Your task to perform on an android device: Open the web browser Image 0: 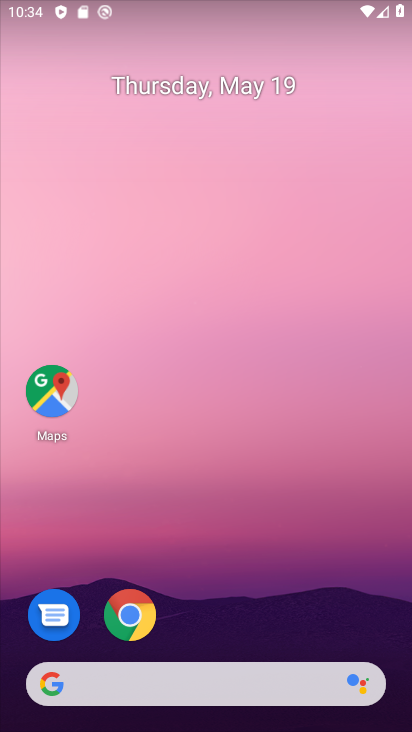
Step 0: drag from (281, 452) to (264, 130)
Your task to perform on an android device: Open the web browser Image 1: 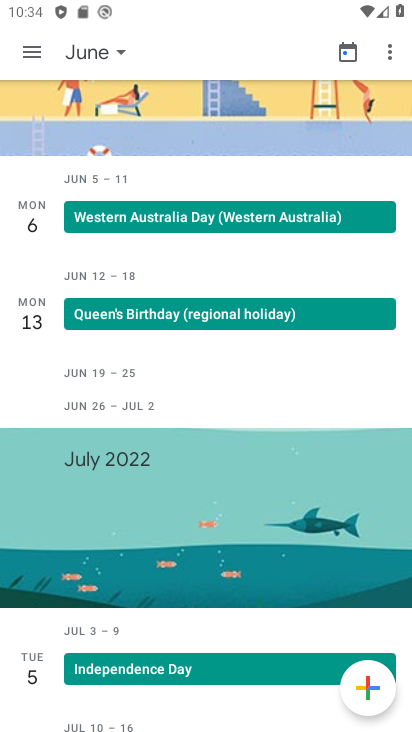
Step 1: press back button
Your task to perform on an android device: Open the web browser Image 2: 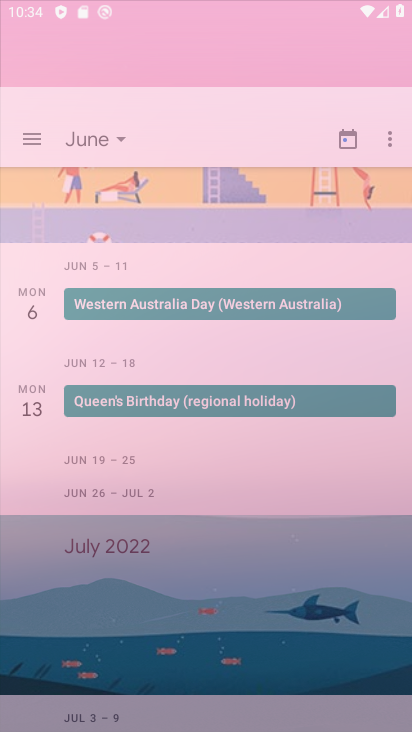
Step 2: press back button
Your task to perform on an android device: Open the web browser Image 3: 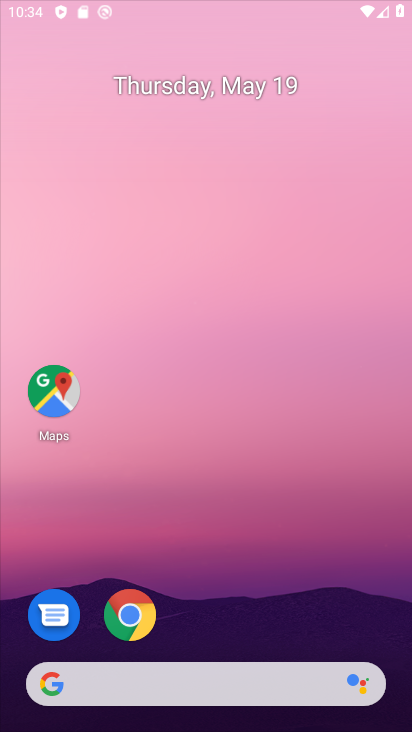
Step 3: press back button
Your task to perform on an android device: Open the web browser Image 4: 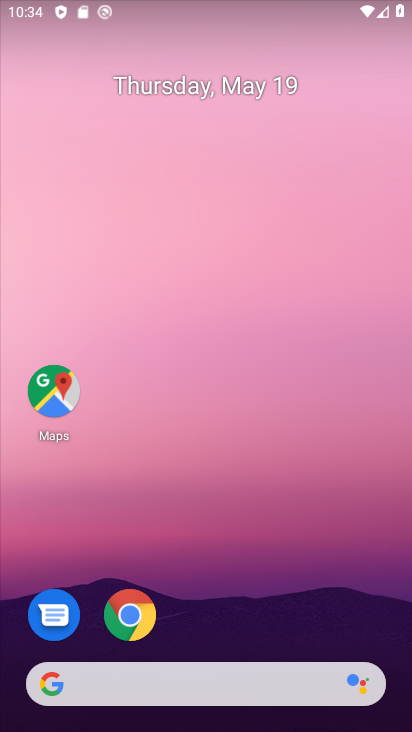
Step 4: drag from (264, 579) to (193, 162)
Your task to perform on an android device: Open the web browser Image 5: 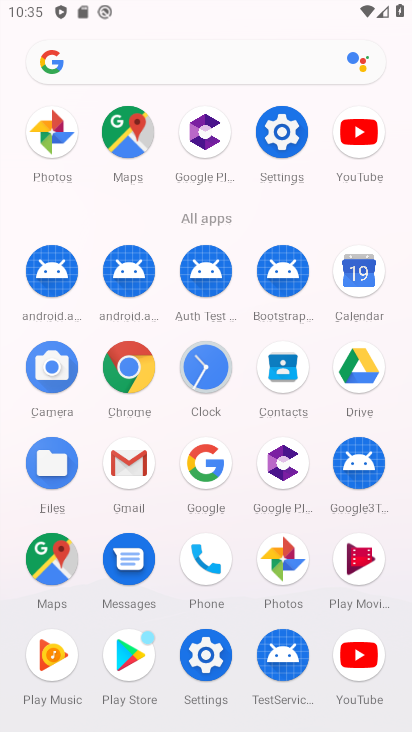
Step 5: click (127, 378)
Your task to perform on an android device: Open the web browser Image 6: 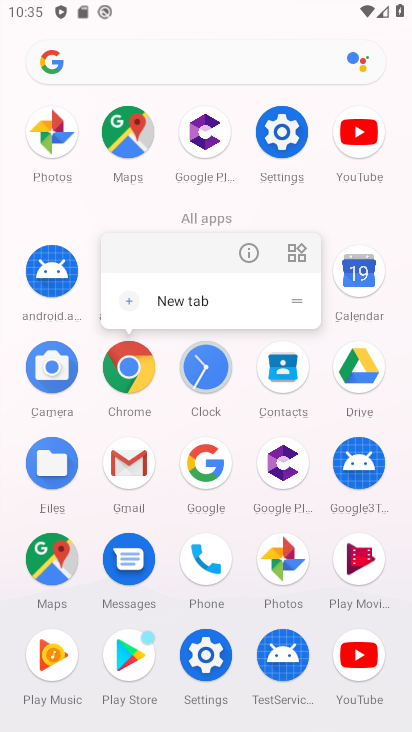
Step 6: click (138, 369)
Your task to perform on an android device: Open the web browser Image 7: 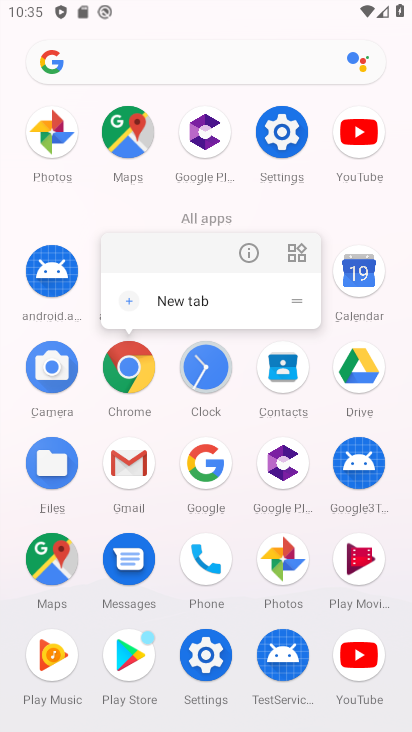
Step 7: click (138, 369)
Your task to perform on an android device: Open the web browser Image 8: 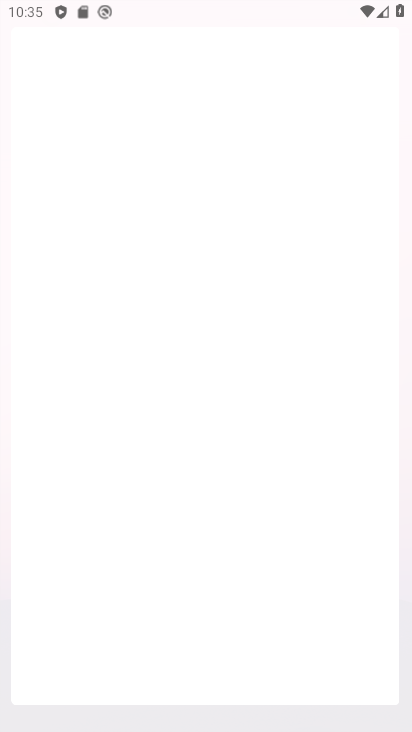
Step 8: click (138, 367)
Your task to perform on an android device: Open the web browser Image 9: 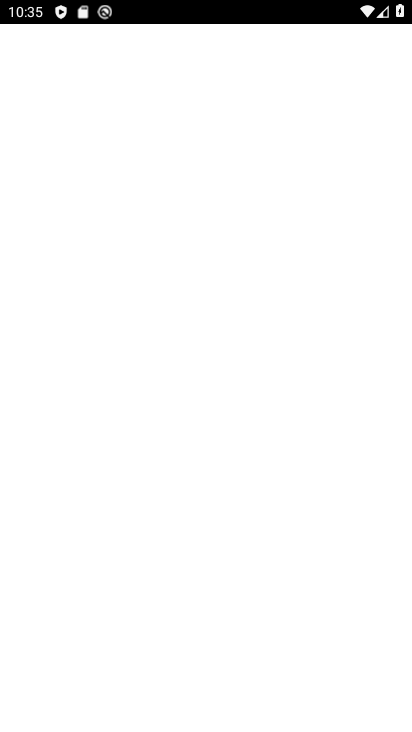
Step 9: click (136, 365)
Your task to perform on an android device: Open the web browser Image 10: 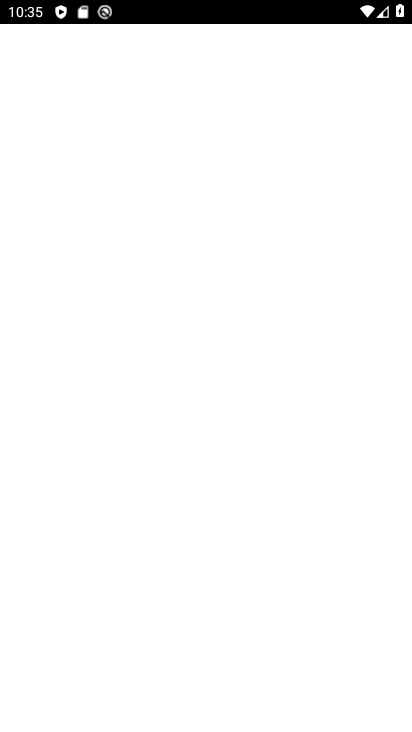
Step 10: click (137, 363)
Your task to perform on an android device: Open the web browser Image 11: 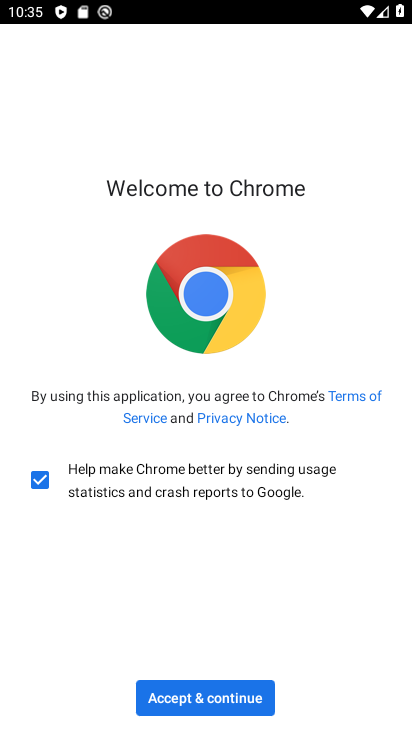
Step 11: click (215, 690)
Your task to perform on an android device: Open the web browser Image 12: 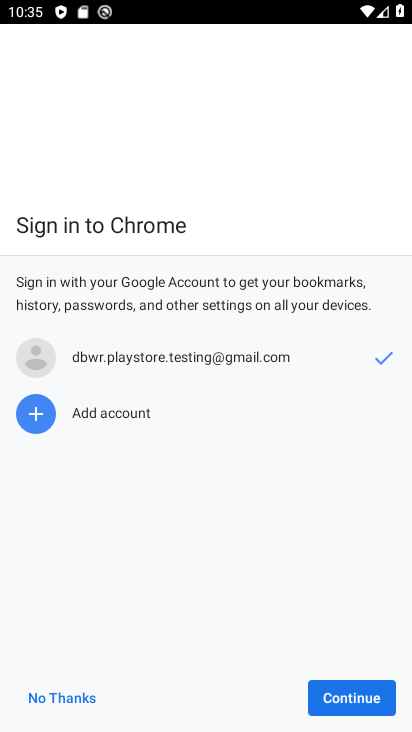
Step 12: click (362, 702)
Your task to perform on an android device: Open the web browser Image 13: 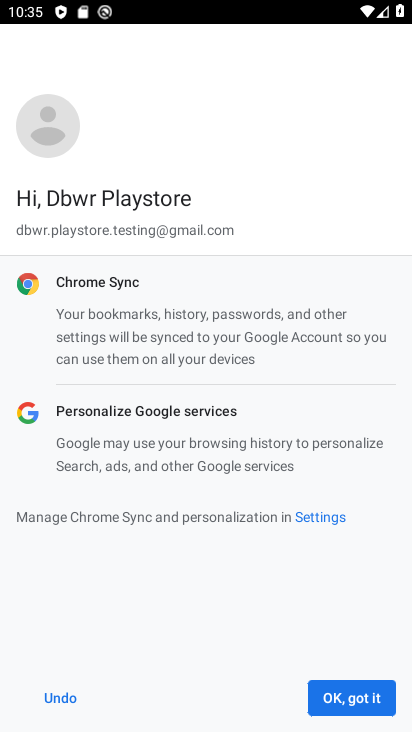
Step 13: click (355, 693)
Your task to perform on an android device: Open the web browser Image 14: 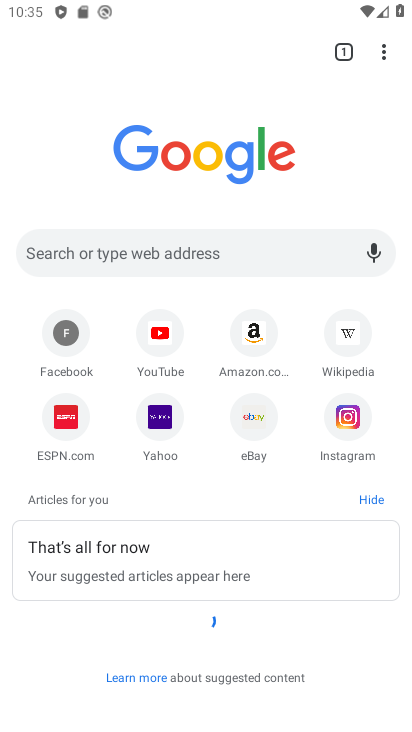
Step 14: drag from (382, 43) to (201, 97)
Your task to perform on an android device: Open the web browser Image 15: 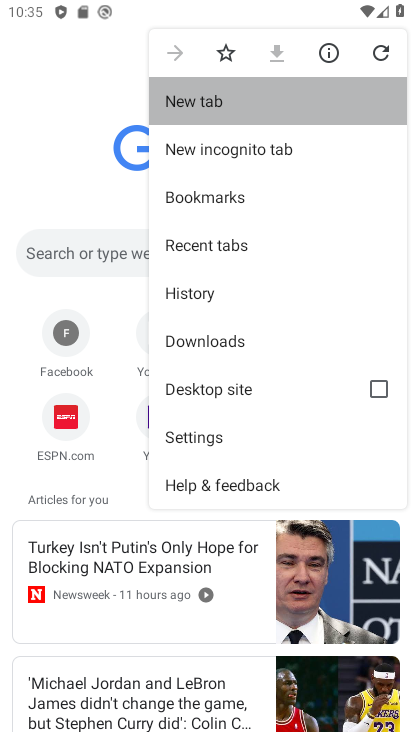
Step 15: click (201, 97)
Your task to perform on an android device: Open the web browser Image 16: 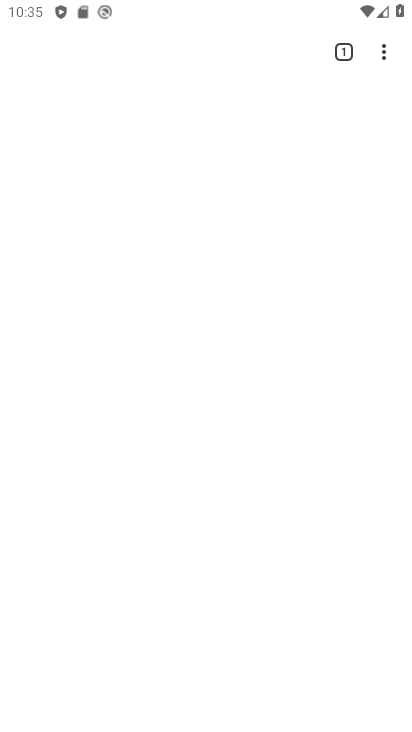
Step 16: click (200, 96)
Your task to perform on an android device: Open the web browser Image 17: 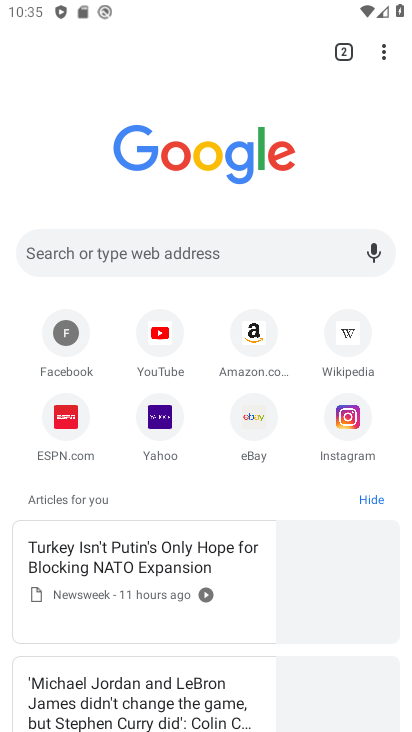
Step 17: click (201, 95)
Your task to perform on an android device: Open the web browser Image 18: 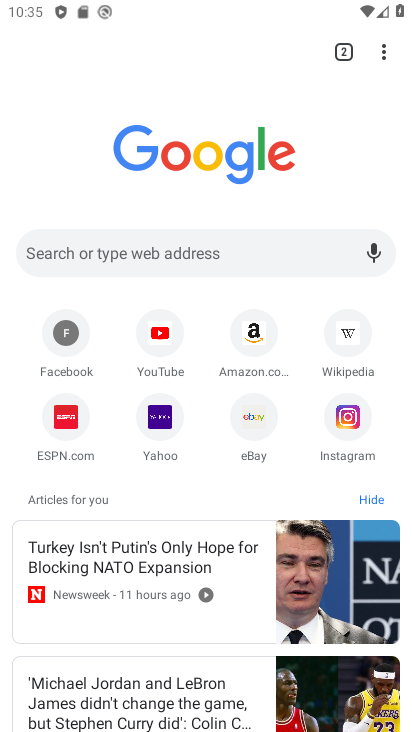
Step 18: task complete